Your task to perform on an android device: turn on location history Image 0: 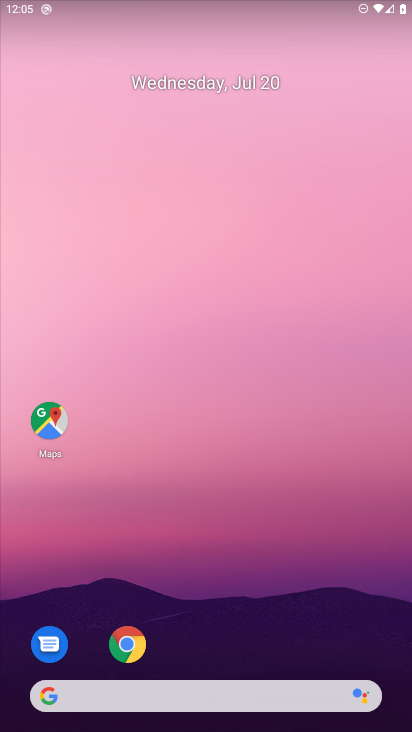
Step 0: drag from (63, 589) to (305, 17)
Your task to perform on an android device: turn on location history Image 1: 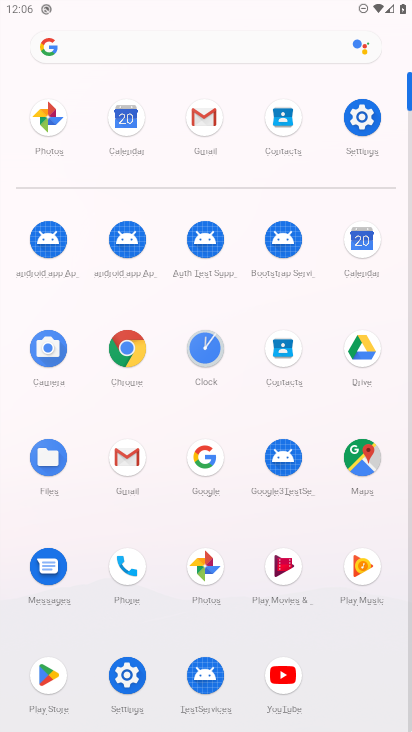
Step 1: click (125, 669)
Your task to perform on an android device: turn on location history Image 2: 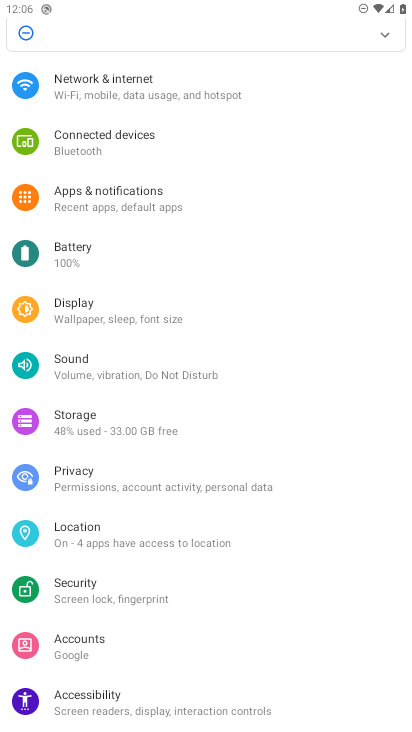
Step 2: click (104, 538)
Your task to perform on an android device: turn on location history Image 3: 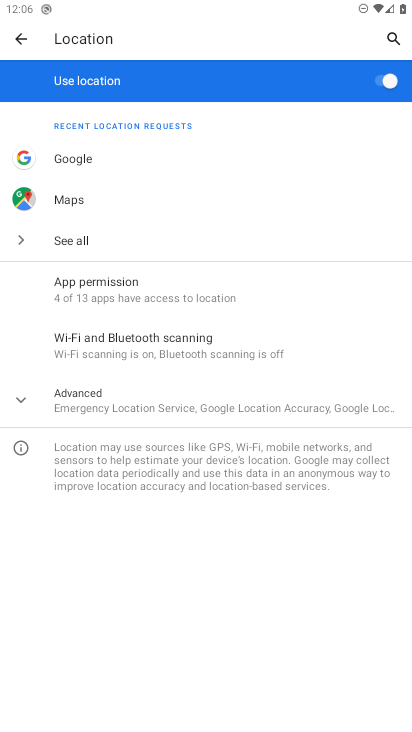
Step 3: click (84, 394)
Your task to perform on an android device: turn on location history Image 4: 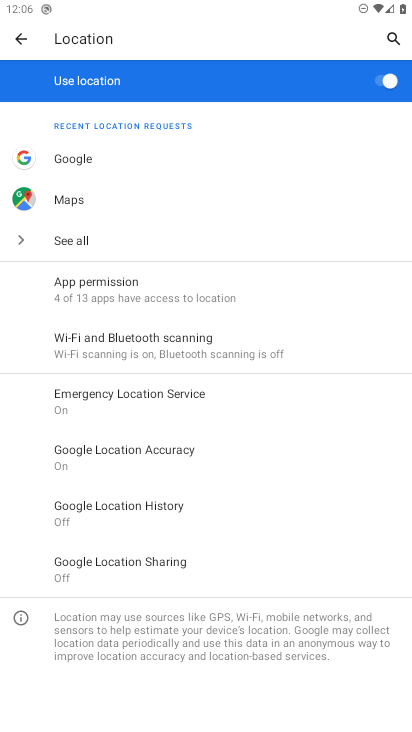
Step 4: click (88, 511)
Your task to perform on an android device: turn on location history Image 5: 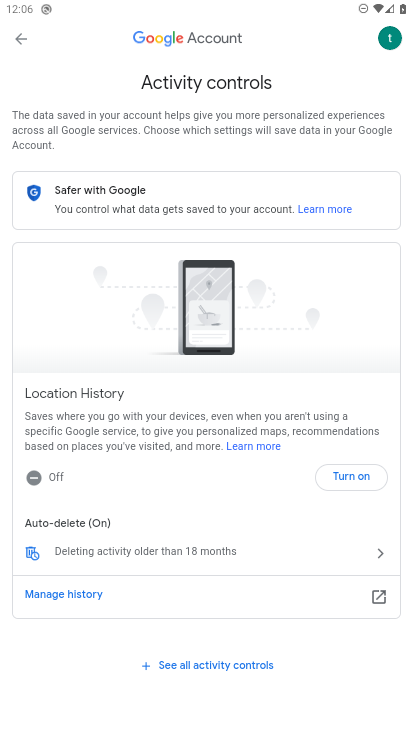
Step 5: click (336, 477)
Your task to perform on an android device: turn on location history Image 6: 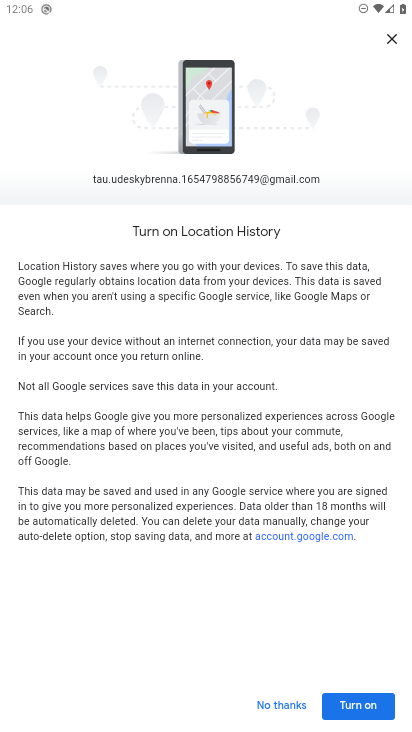
Step 6: click (348, 697)
Your task to perform on an android device: turn on location history Image 7: 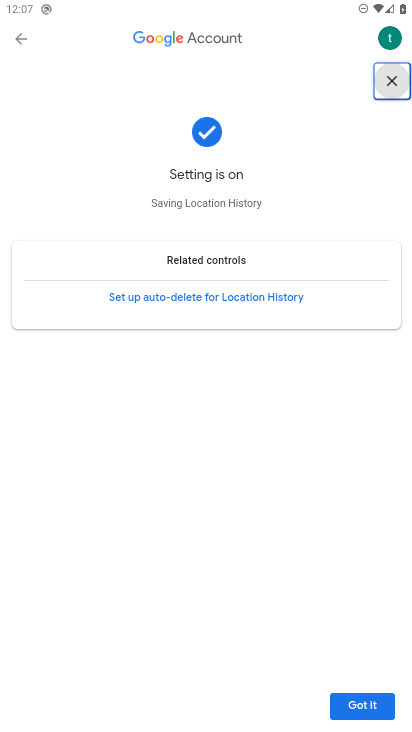
Step 7: click (347, 702)
Your task to perform on an android device: turn on location history Image 8: 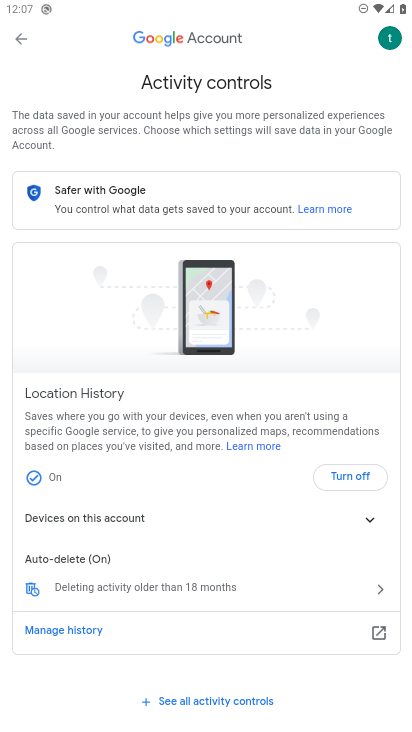
Step 8: task complete